Your task to perform on an android device: Open calendar and show me the fourth week of next month Image 0: 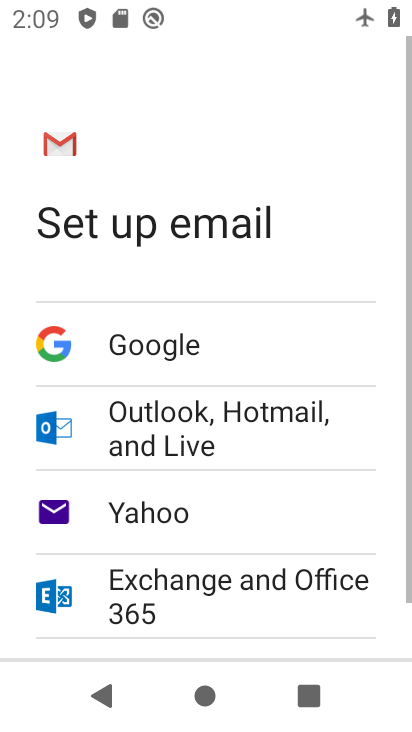
Step 0: press home button
Your task to perform on an android device: Open calendar and show me the fourth week of next month Image 1: 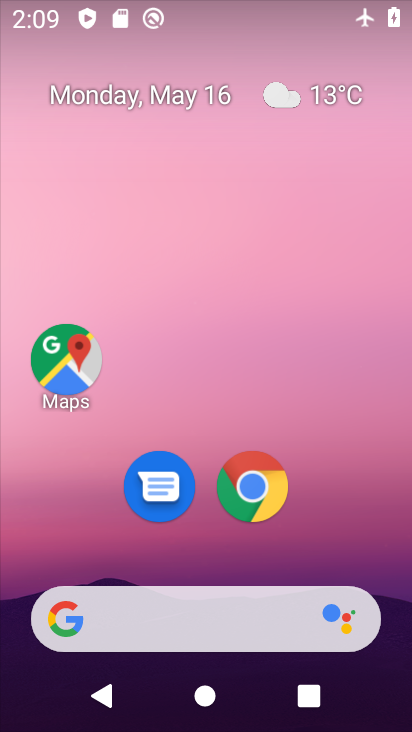
Step 1: drag from (370, 535) to (328, 126)
Your task to perform on an android device: Open calendar and show me the fourth week of next month Image 2: 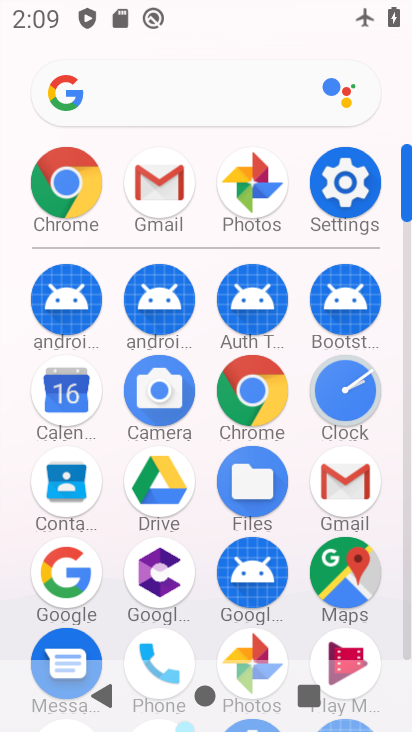
Step 2: click (74, 398)
Your task to perform on an android device: Open calendar and show me the fourth week of next month Image 3: 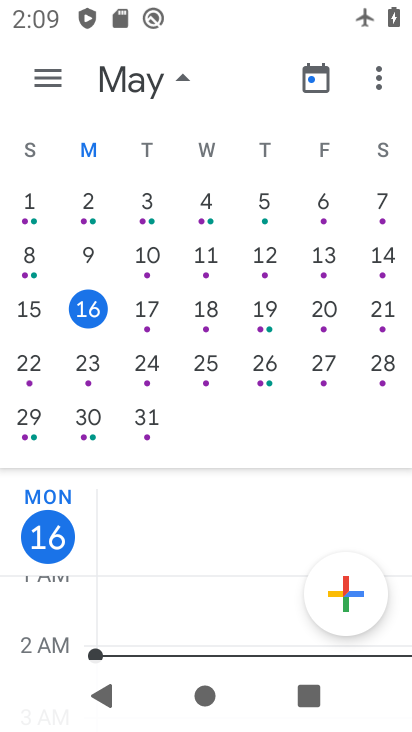
Step 3: drag from (335, 362) to (4, 284)
Your task to perform on an android device: Open calendar and show me the fourth week of next month Image 4: 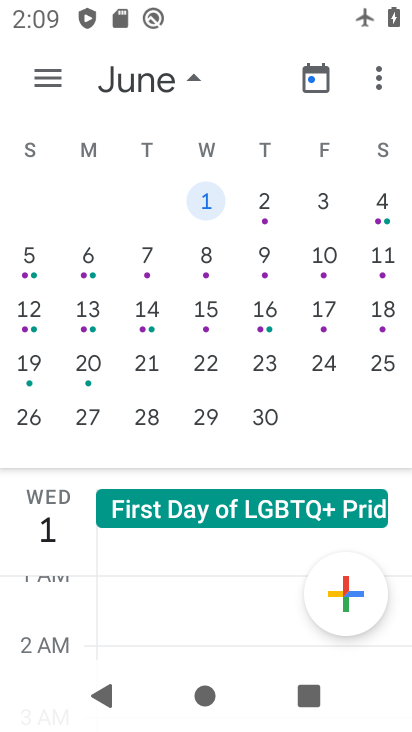
Step 4: click (151, 423)
Your task to perform on an android device: Open calendar and show me the fourth week of next month Image 5: 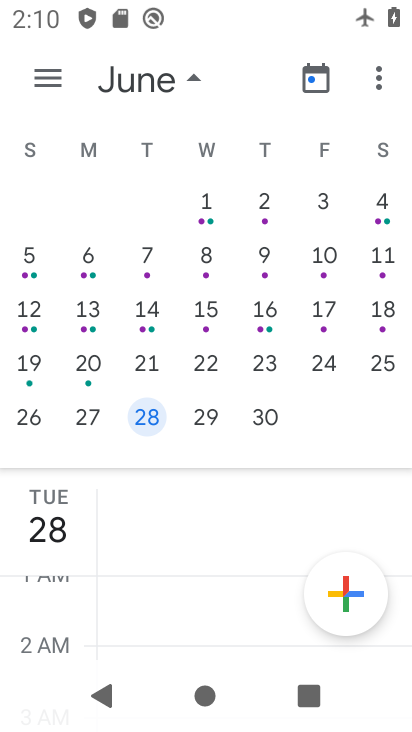
Step 5: task complete